Your task to perform on an android device: Open display settings Image 0: 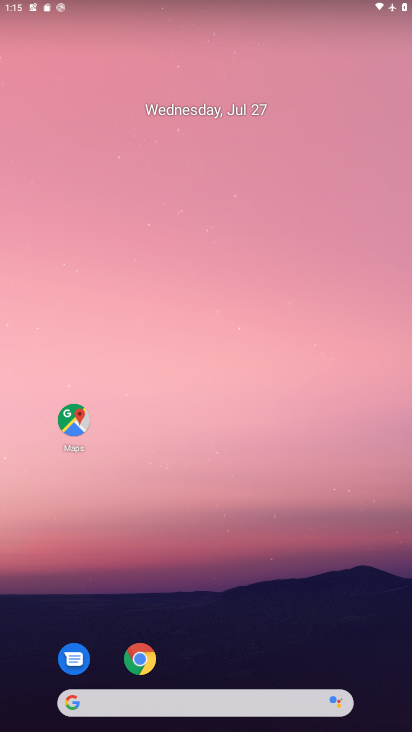
Step 0: drag from (214, 672) to (256, 86)
Your task to perform on an android device: Open display settings Image 1: 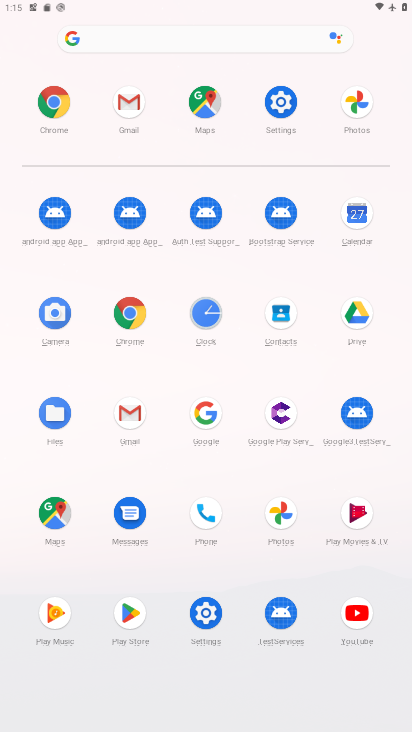
Step 1: click (217, 620)
Your task to perform on an android device: Open display settings Image 2: 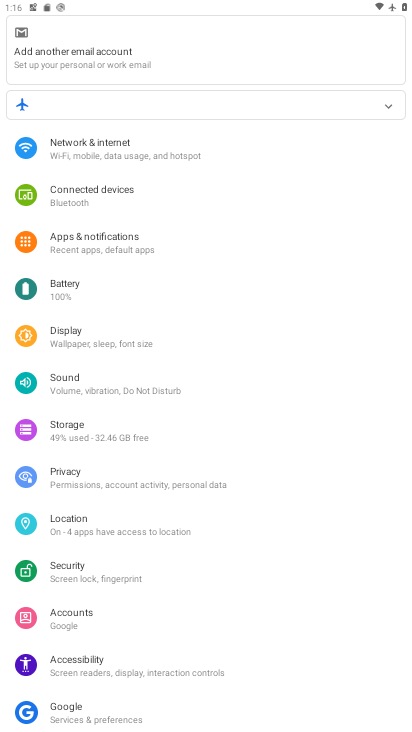
Step 2: click (102, 336)
Your task to perform on an android device: Open display settings Image 3: 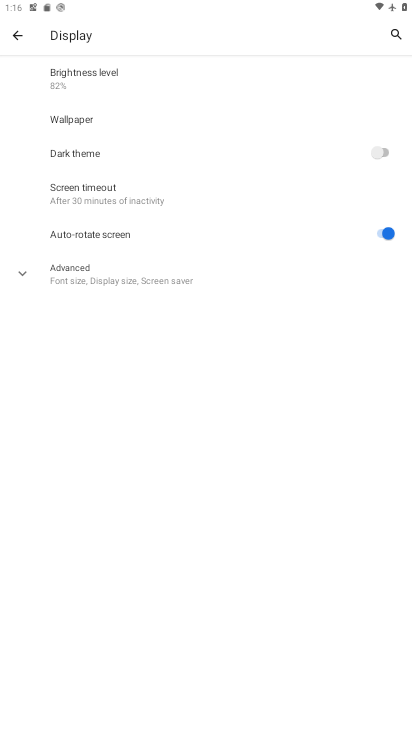
Step 3: task complete